Your task to perform on an android device: Add "usb-c to usb-a" to the cart on bestbuy, then select checkout. Image 0: 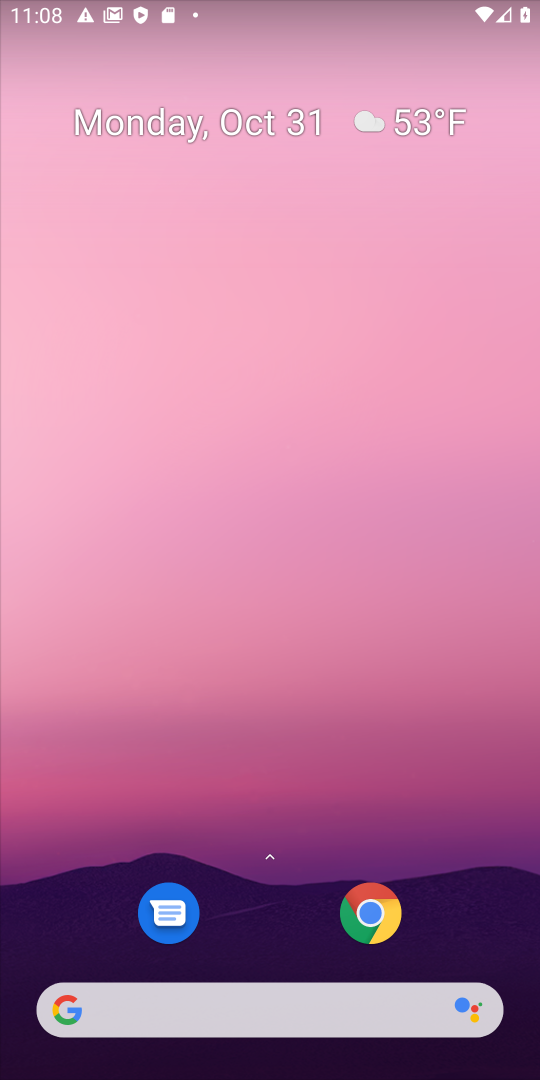
Step 0: click (344, 1018)
Your task to perform on an android device: Add "usb-c to usb-a" to the cart on bestbuy, then select checkout. Image 1: 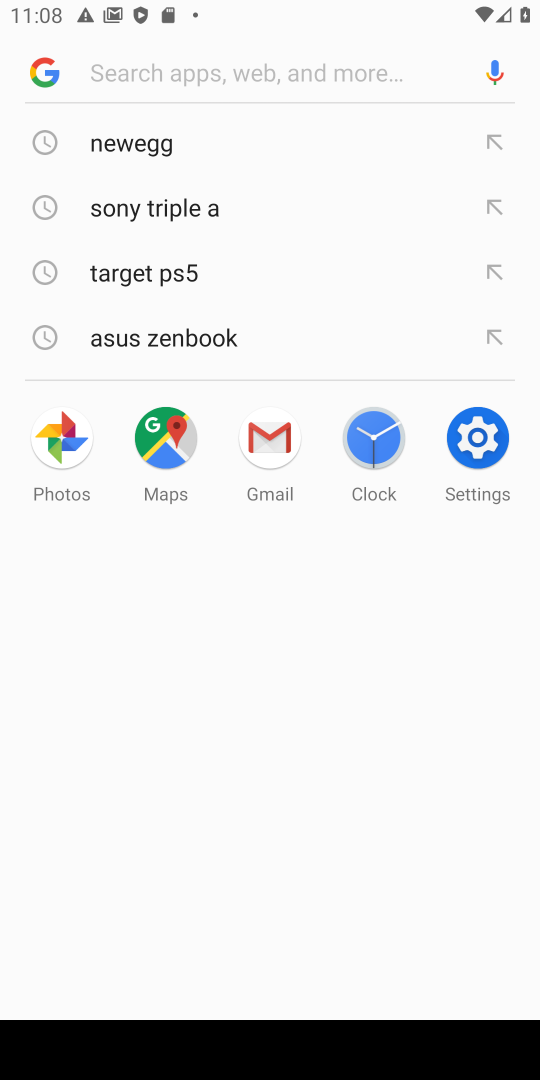
Step 1: type "best buy"
Your task to perform on an android device: Add "usb-c to usb-a" to the cart on bestbuy, then select checkout. Image 2: 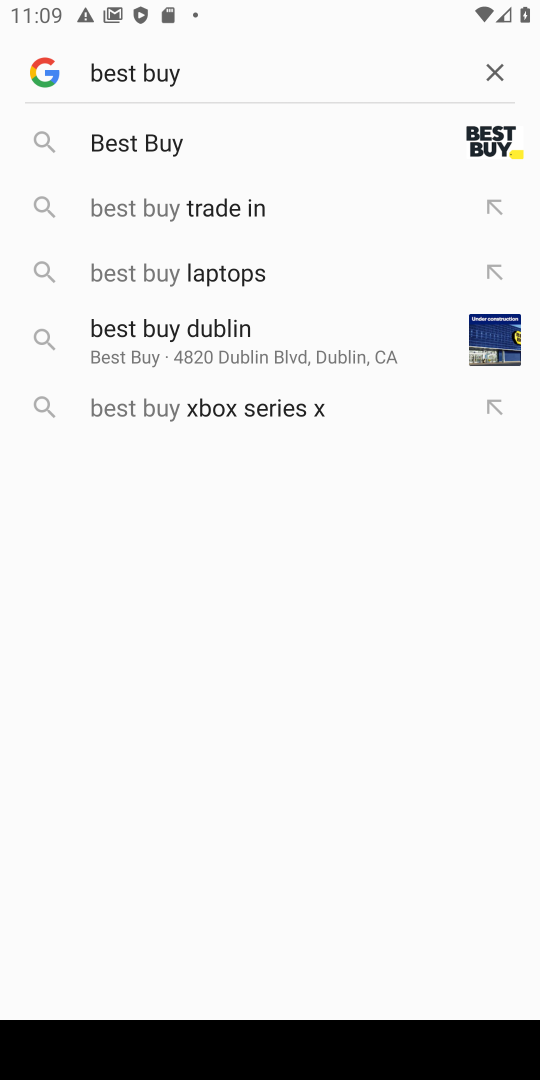
Step 2: click (222, 125)
Your task to perform on an android device: Add "usb-c to usb-a" to the cart on bestbuy, then select checkout. Image 3: 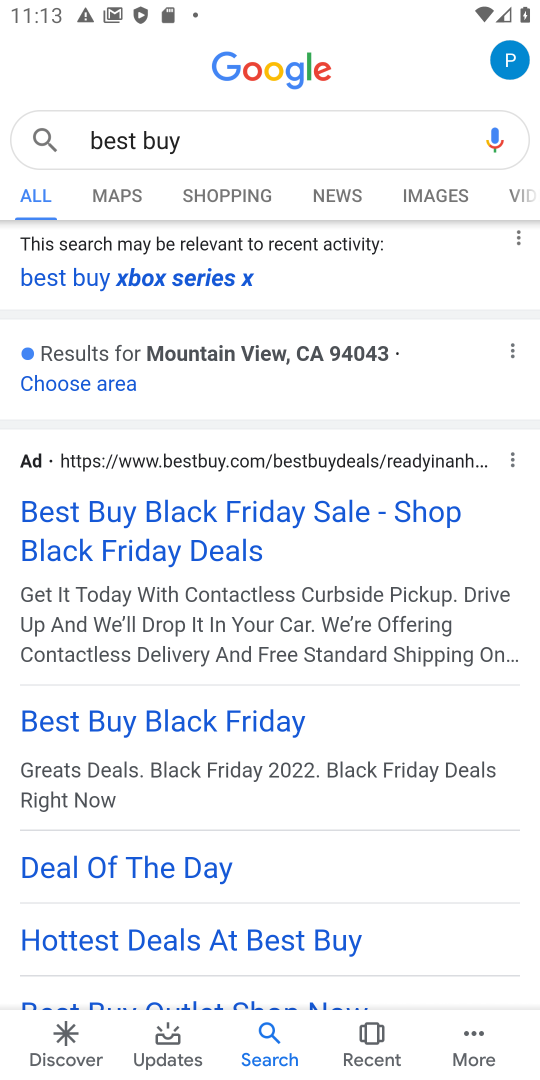
Step 3: click (352, 521)
Your task to perform on an android device: Add "usb-c to usb-a" to the cart on bestbuy, then select checkout. Image 4: 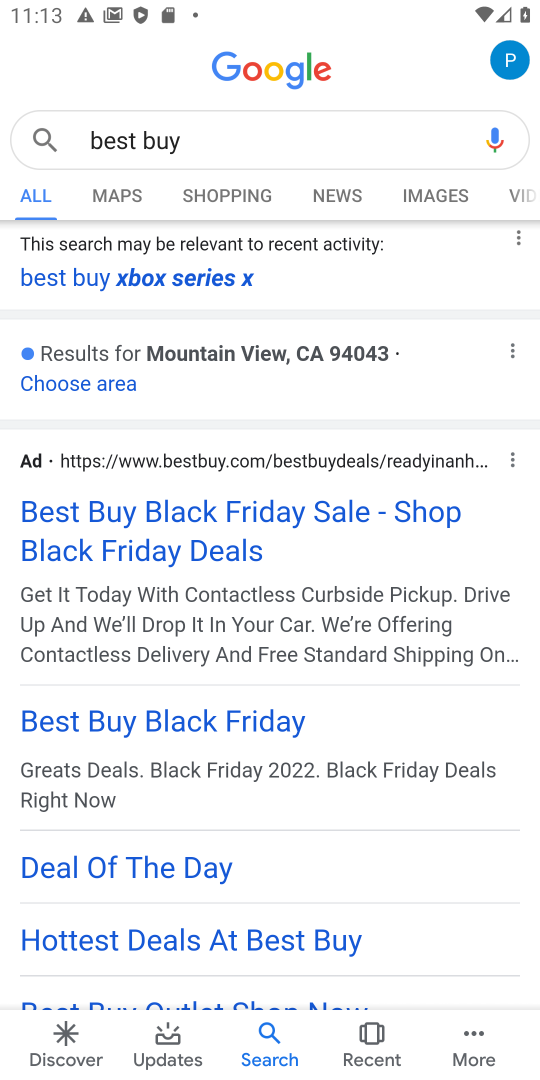
Step 4: task complete